Your task to perform on an android device: turn pop-ups off in chrome Image 0: 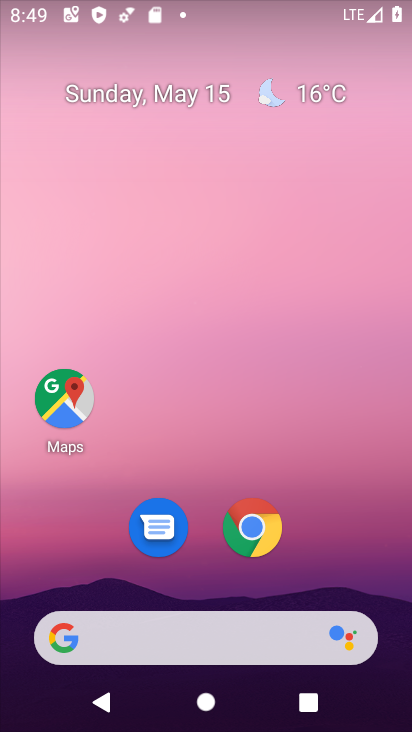
Step 0: click (254, 536)
Your task to perform on an android device: turn pop-ups off in chrome Image 1: 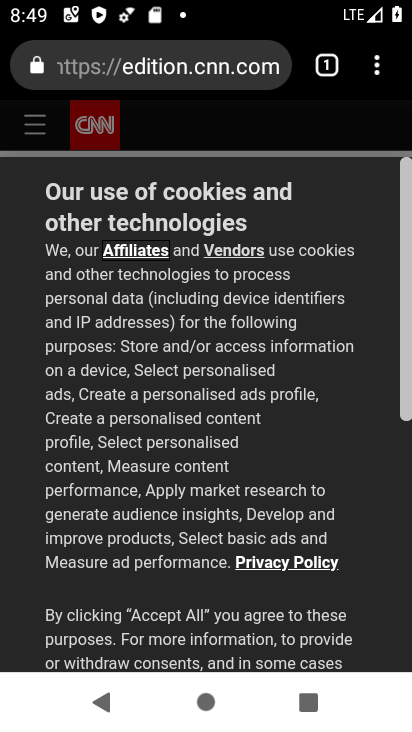
Step 1: click (375, 66)
Your task to perform on an android device: turn pop-ups off in chrome Image 2: 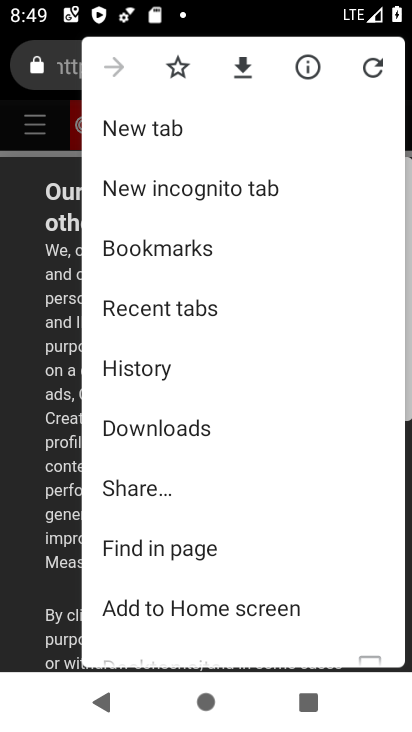
Step 2: drag from (324, 530) to (282, 45)
Your task to perform on an android device: turn pop-ups off in chrome Image 3: 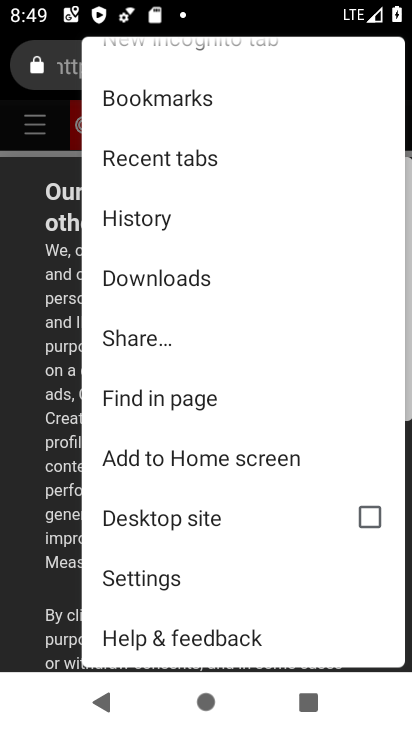
Step 3: click (132, 590)
Your task to perform on an android device: turn pop-ups off in chrome Image 4: 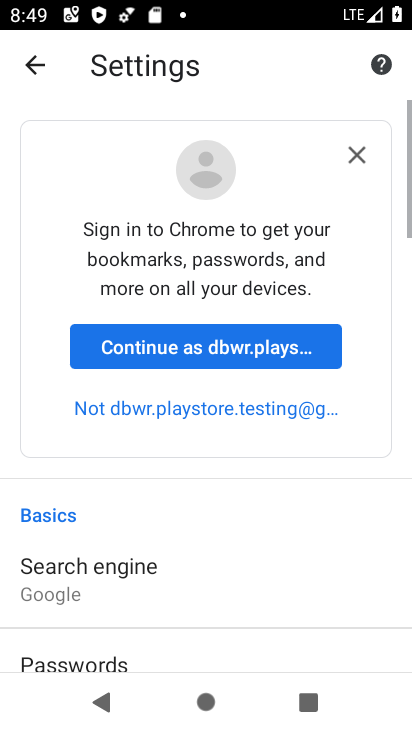
Step 4: drag from (172, 619) to (180, 129)
Your task to perform on an android device: turn pop-ups off in chrome Image 5: 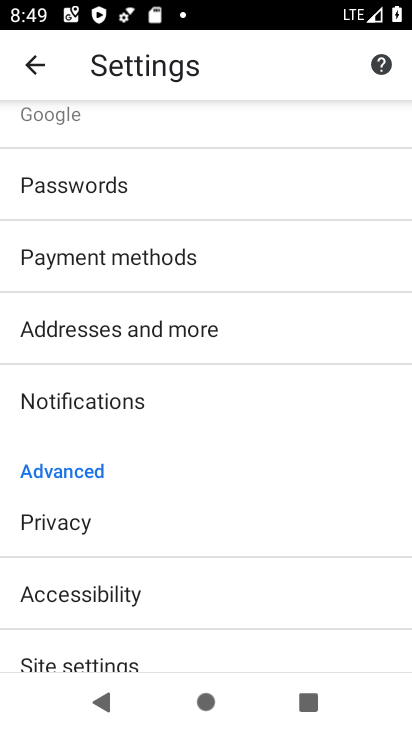
Step 5: drag from (197, 522) to (166, 140)
Your task to perform on an android device: turn pop-ups off in chrome Image 6: 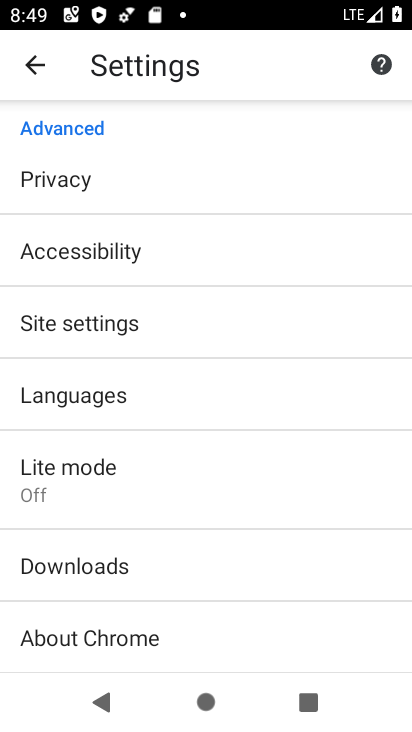
Step 6: click (63, 332)
Your task to perform on an android device: turn pop-ups off in chrome Image 7: 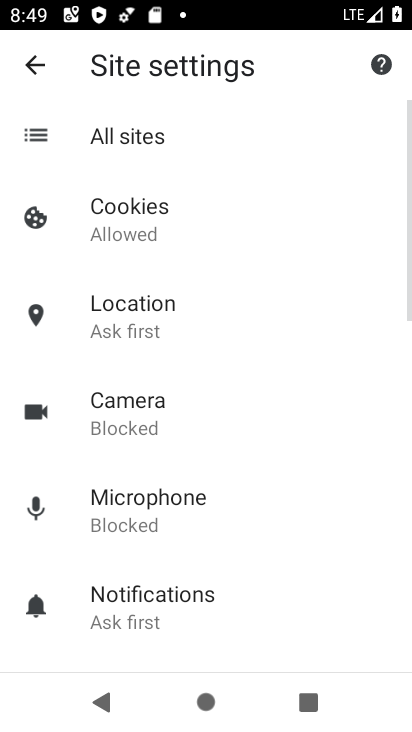
Step 7: drag from (235, 555) to (207, 154)
Your task to perform on an android device: turn pop-ups off in chrome Image 8: 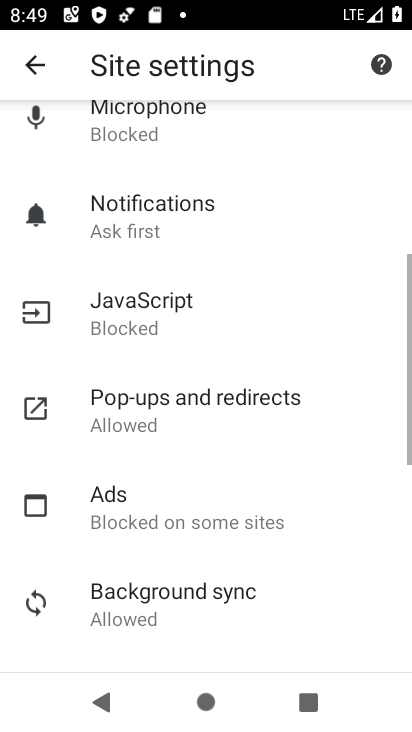
Step 8: click (122, 404)
Your task to perform on an android device: turn pop-ups off in chrome Image 9: 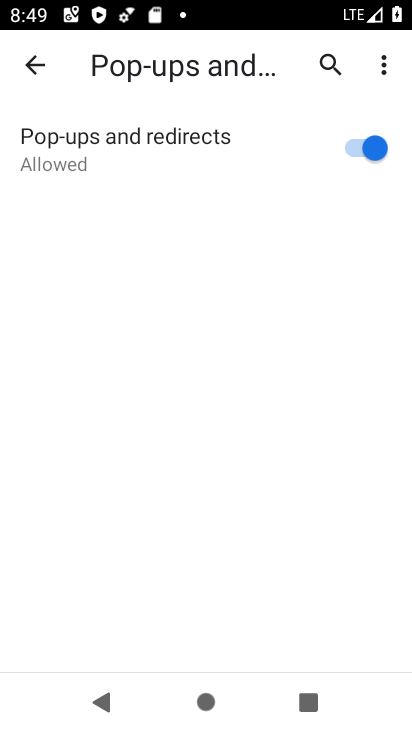
Step 9: click (378, 152)
Your task to perform on an android device: turn pop-ups off in chrome Image 10: 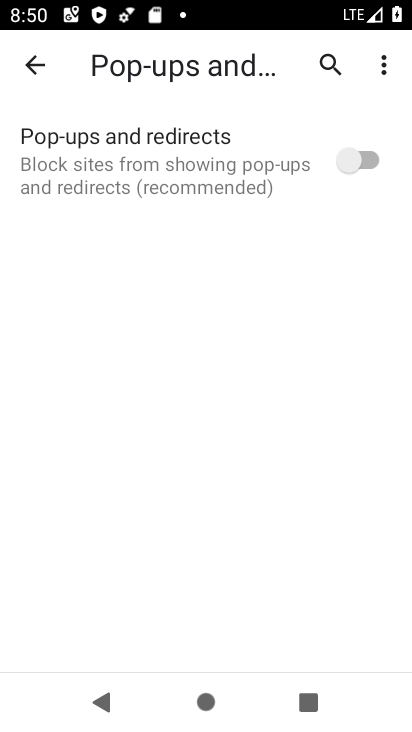
Step 10: task complete